Your task to perform on an android device: open app "LinkedIn" Image 0: 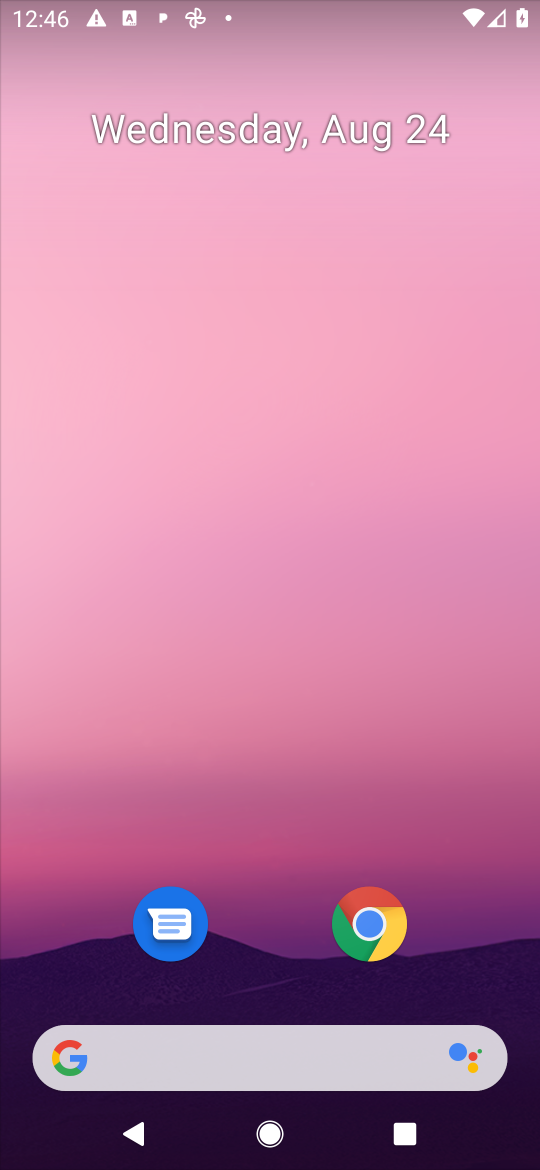
Step 0: press home button
Your task to perform on an android device: open app "LinkedIn" Image 1: 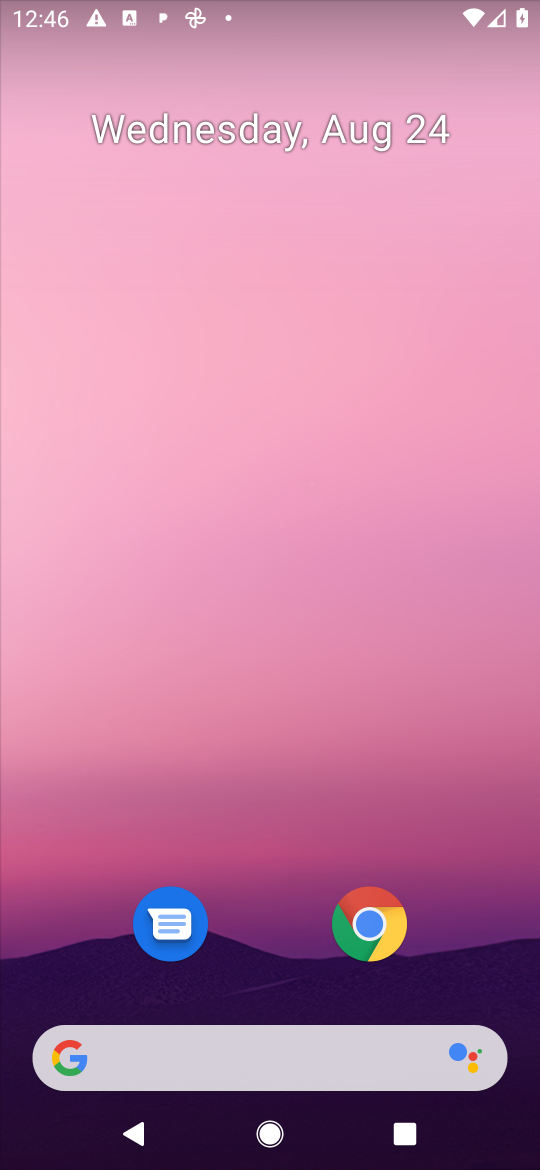
Step 1: drag from (473, 955) to (466, 252)
Your task to perform on an android device: open app "LinkedIn" Image 2: 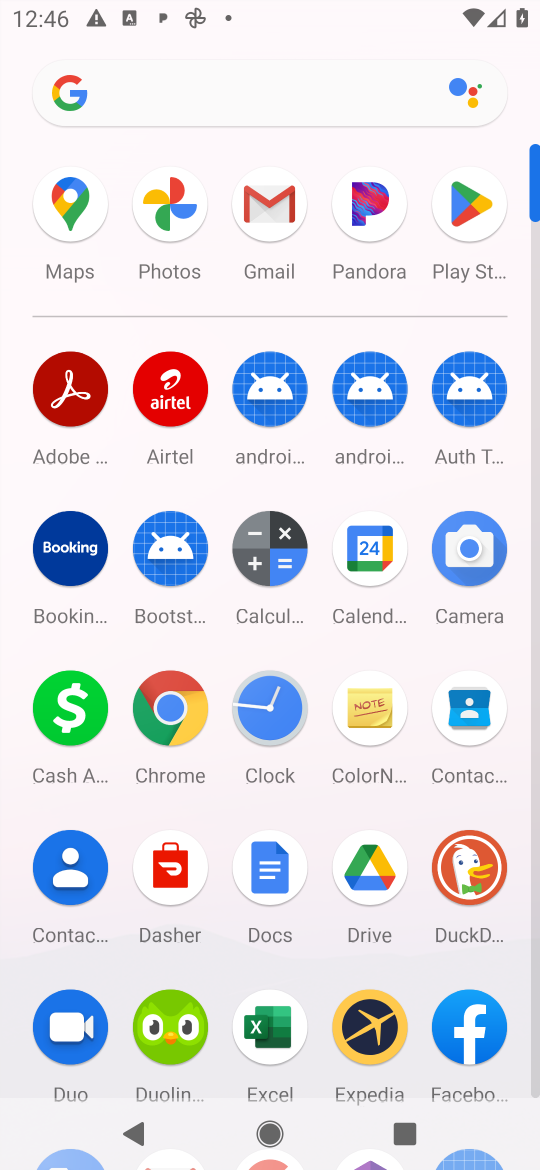
Step 2: click (453, 198)
Your task to perform on an android device: open app "LinkedIn" Image 3: 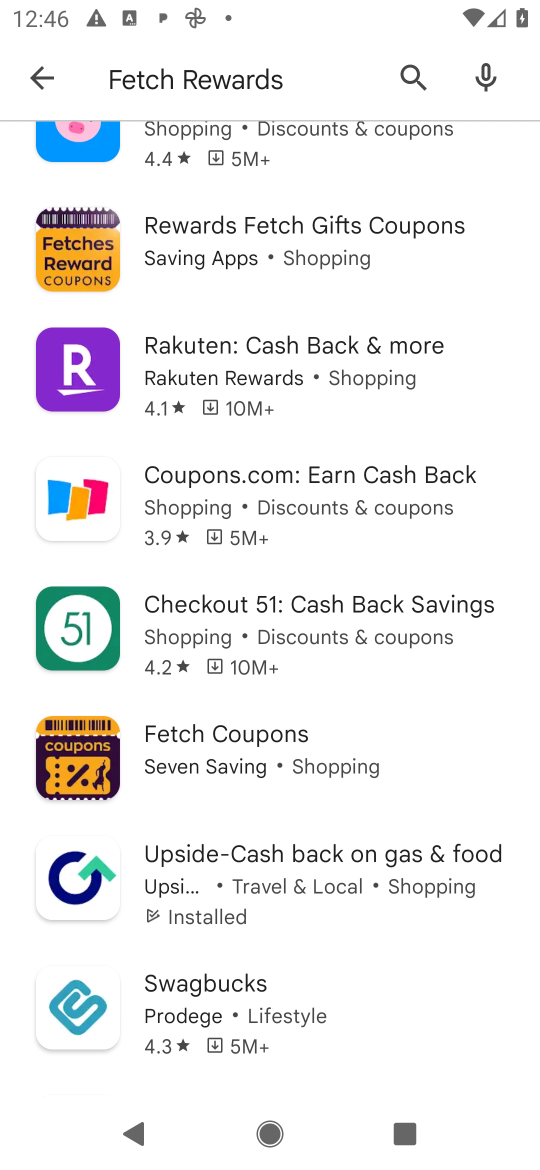
Step 3: press back button
Your task to perform on an android device: open app "LinkedIn" Image 4: 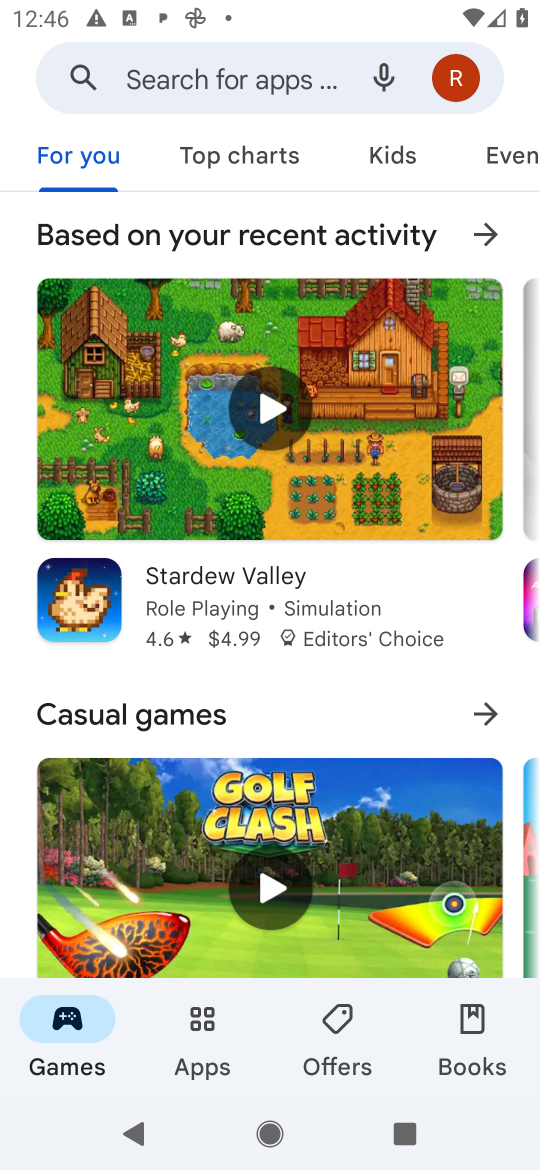
Step 4: click (271, 74)
Your task to perform on an android device: open app "LinkedIn" Image 5: 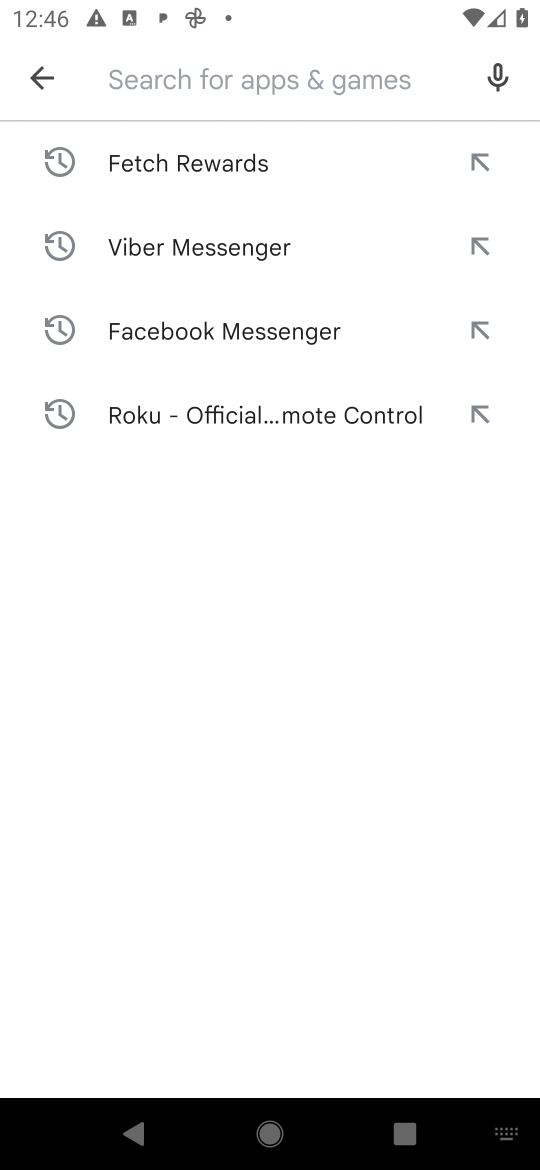
Step 5: press enter
Your task to perform on an android device: open app "LinkedIn" Image 6: 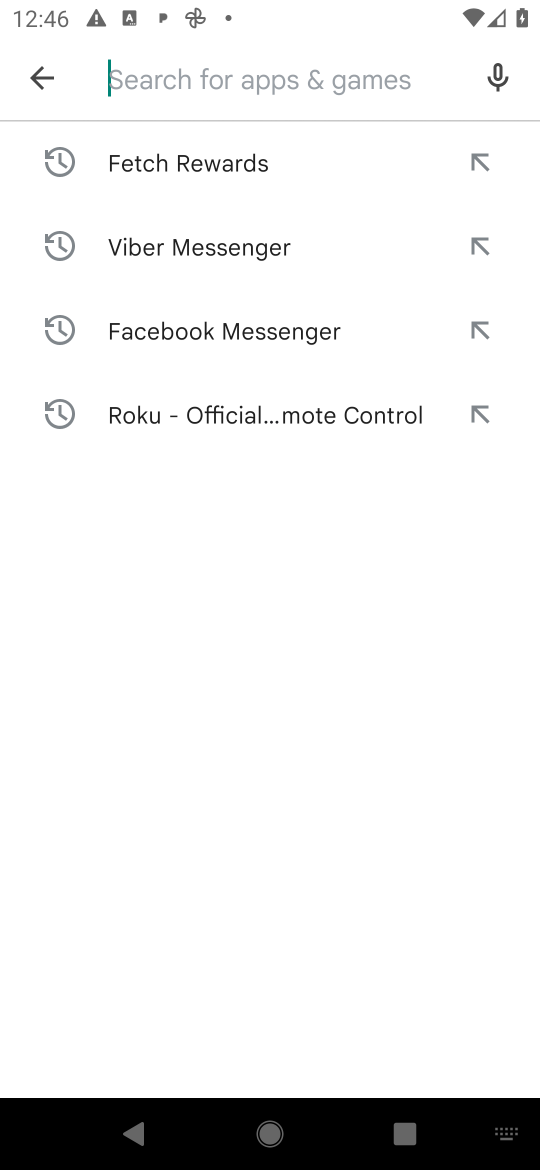
Step 6: type "kinkedin"
Your task to perform on an android device: open app "LinkedIn" Image 7: 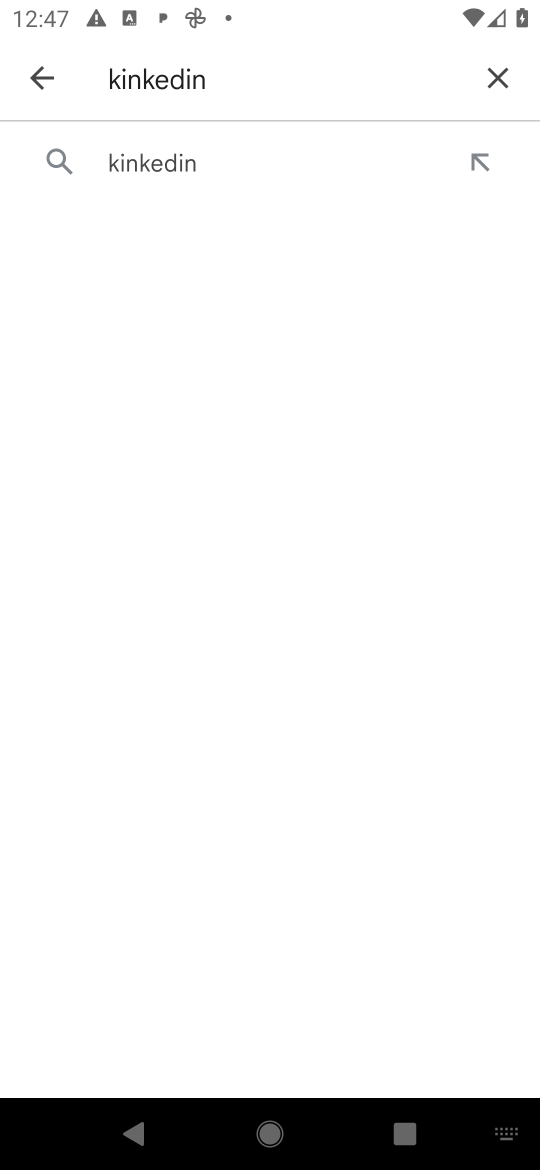
Step 7: click (499, 70)
Your task to perform on an android device: open app "LinkedIn" Image 8: 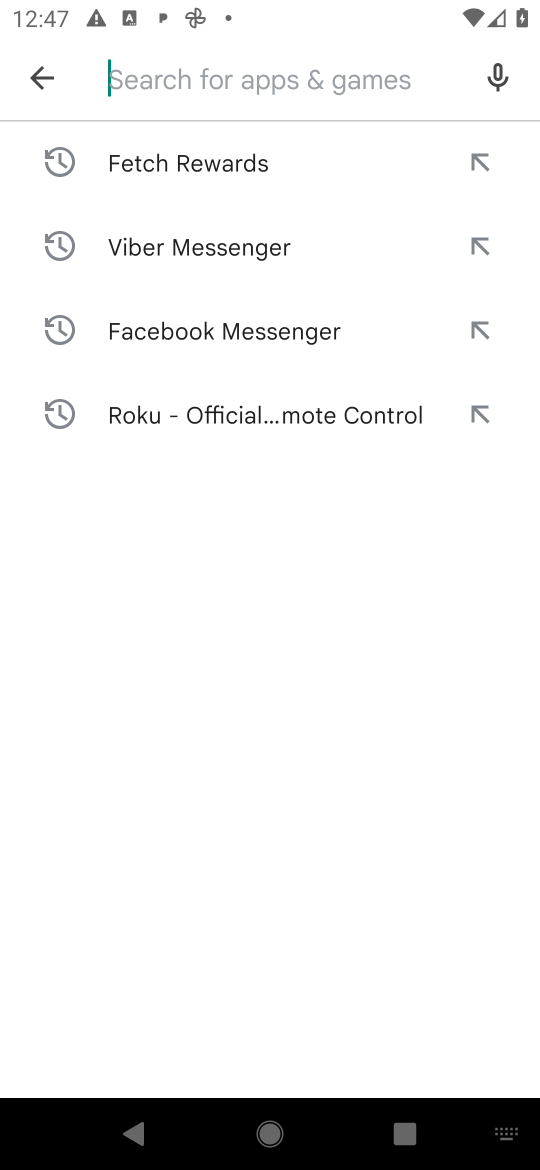
Step 8: press enter
Your task to perform on an android device: open app "LinkedIn" Image 9: 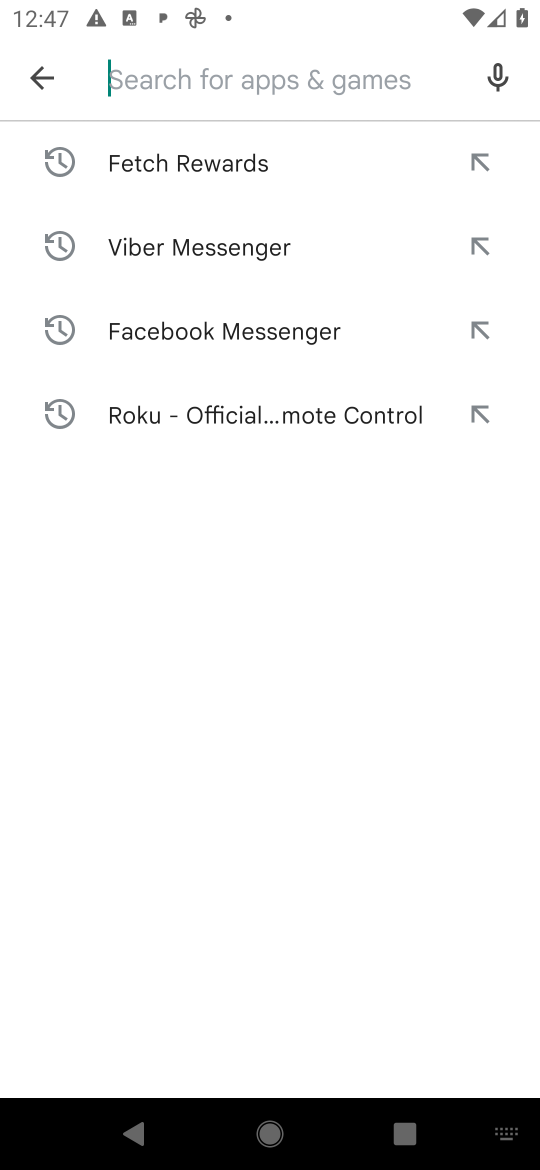
Step 9: type "linkedin"
Your task to perform on an android device: open app "LinkedIn" Image 10: 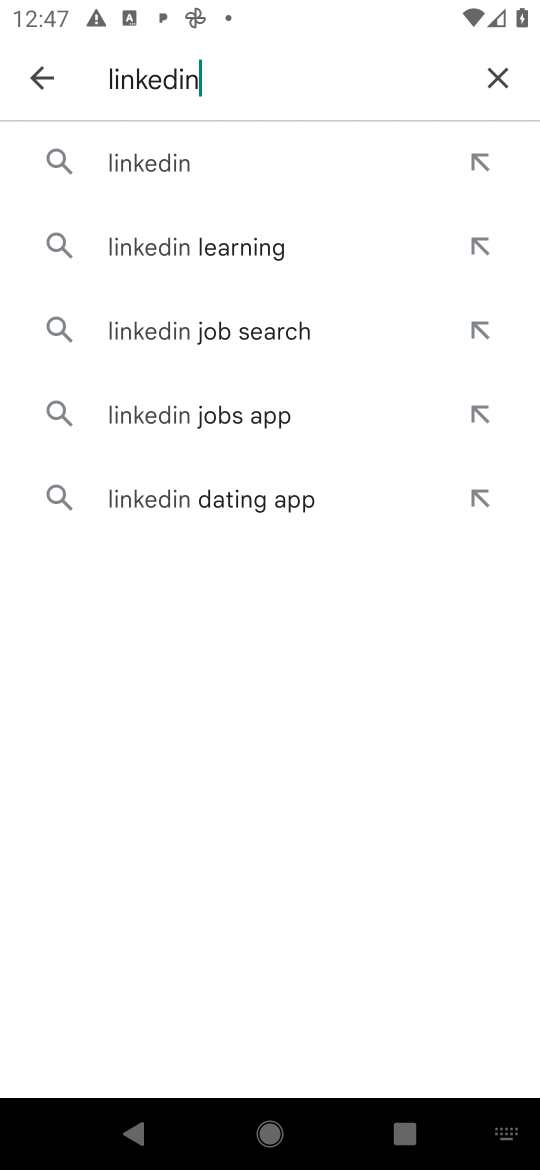
Step 10: click (170, 176)
Your task to perform on an android device: open app "LinkedIn" Image 11: 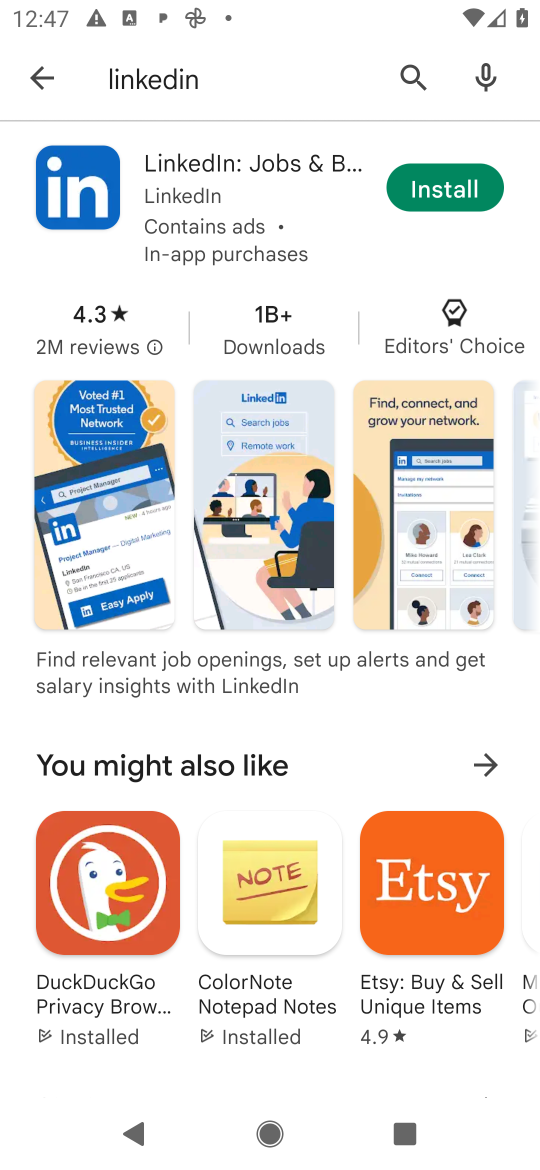
Step 11: task complete